Your task to perform on an android device: Add logitech g910 to the cart on costco.com, then select checkout. Image 0: 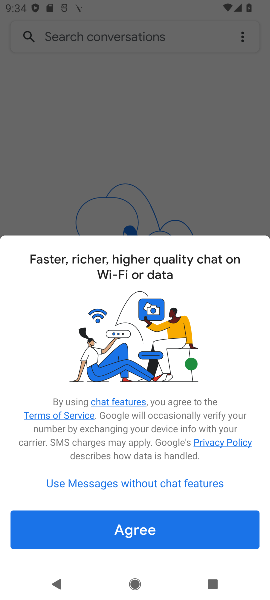
Step 0: task complete